Your task to perform on an android device: set the stopwatch Image 0: 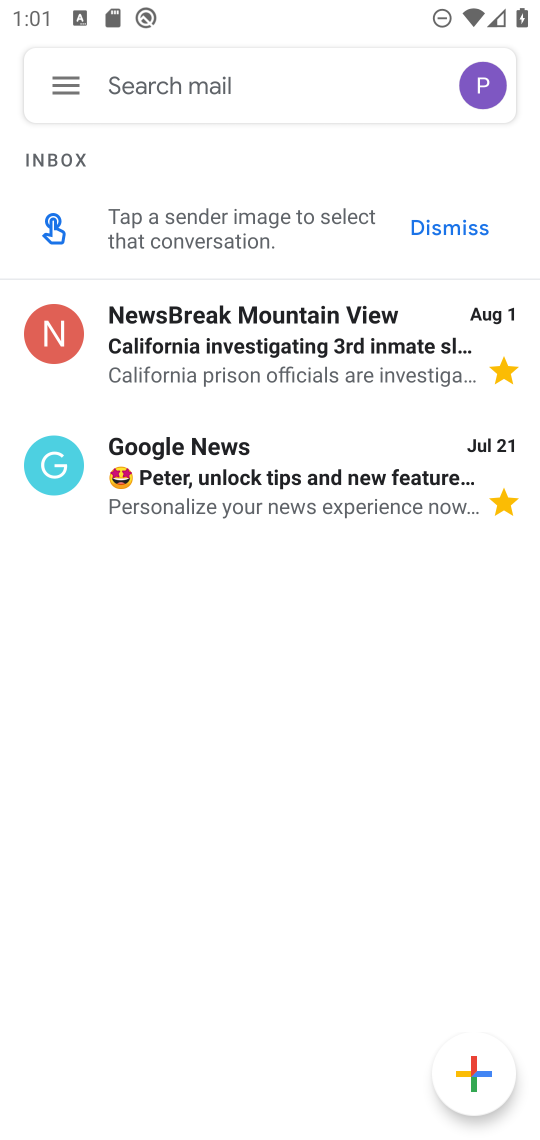
Step 0: press home button
Your task to perform on an android device: set the stopwatch Image 1: 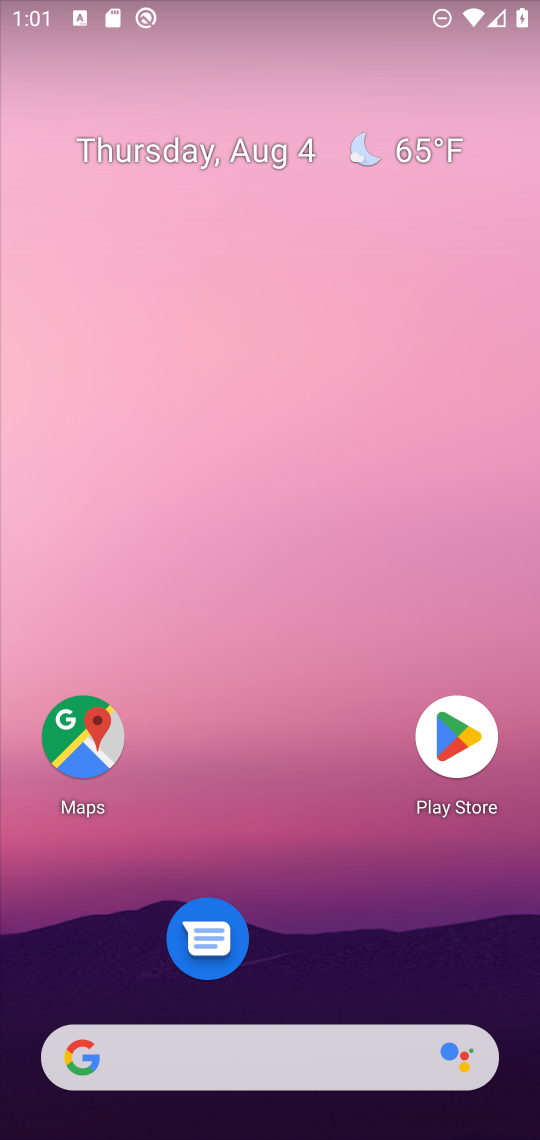
Step 1: drag from (172, 1119) to (389, 189)
Your task to perform on an android device: set the stopwatch Image 2: 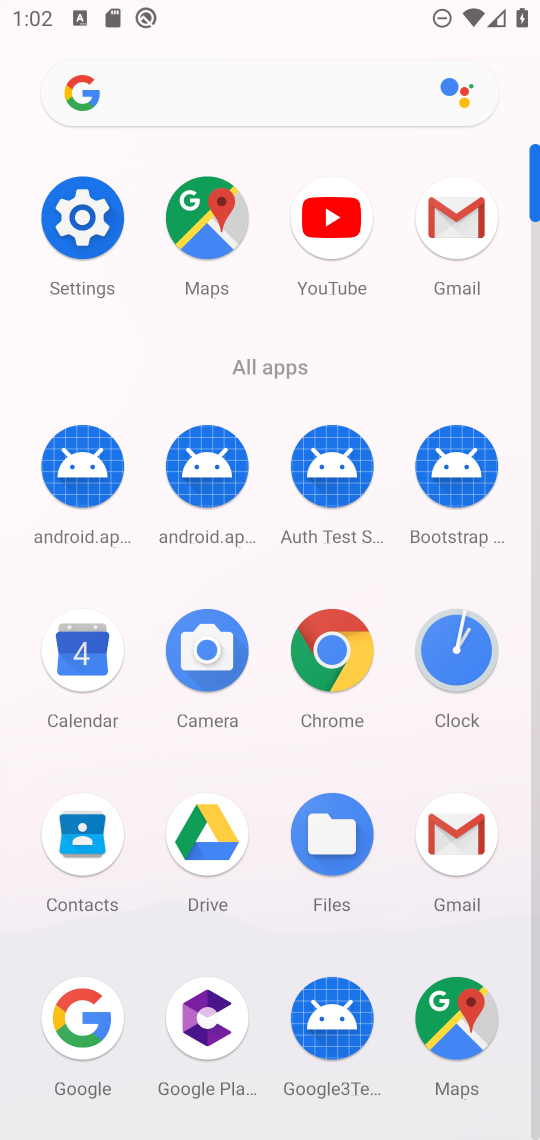
Step 2: click (461, 675)
Your task to perform on an android device: set the stopwatch Image 3: 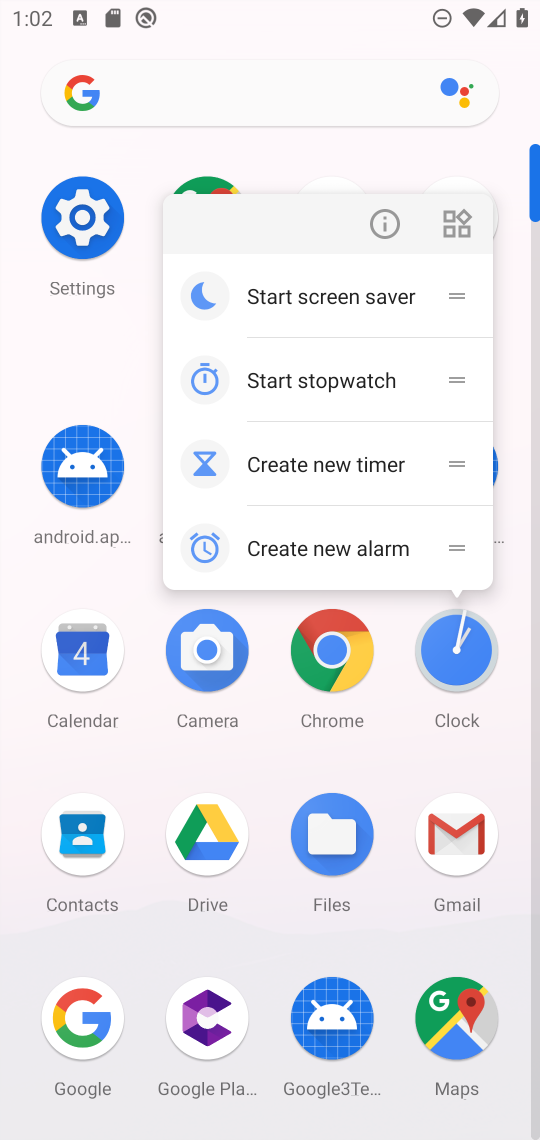
Step 3: click (461, 675)
Your task to perform on an android device: set the stopwatch Image 4: 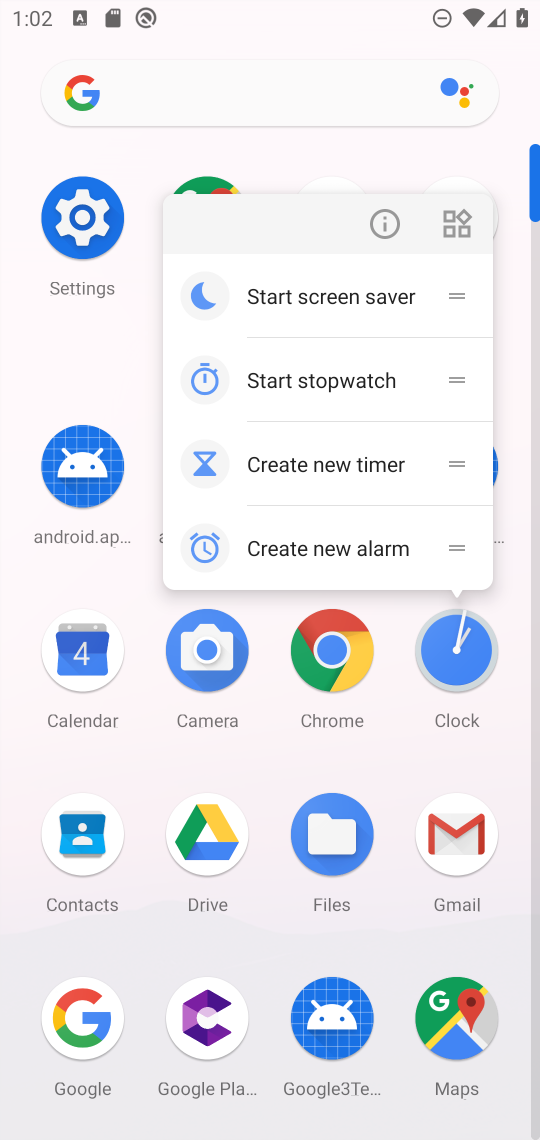
Step 4: click (461, 675)
Your task to perform on an android device: set the stopwatch Image 5: 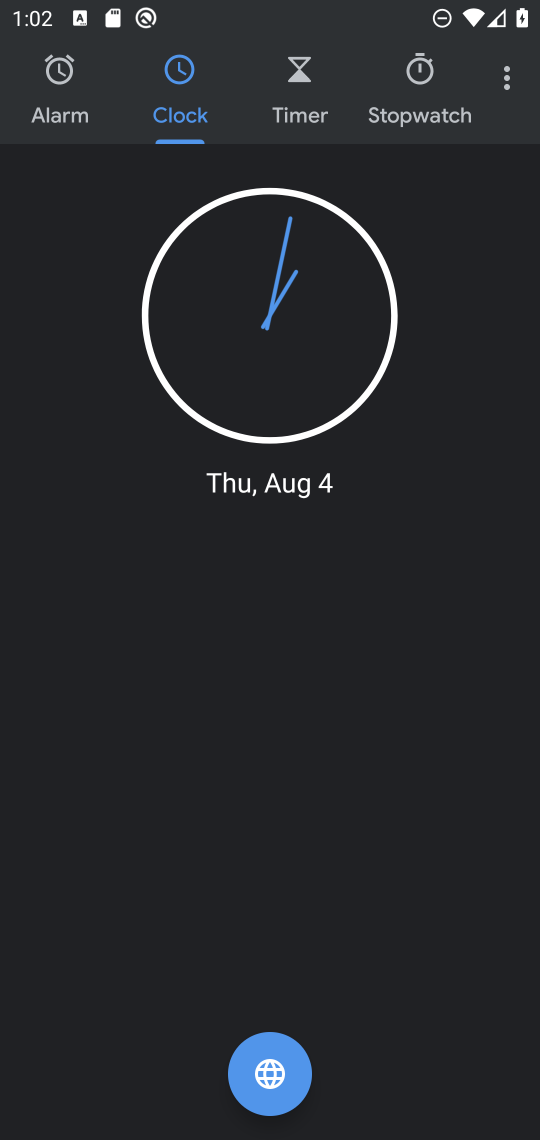
Step 5: click (419, 83)
Your task to perform on an android device: set the stopwatch Image 6: 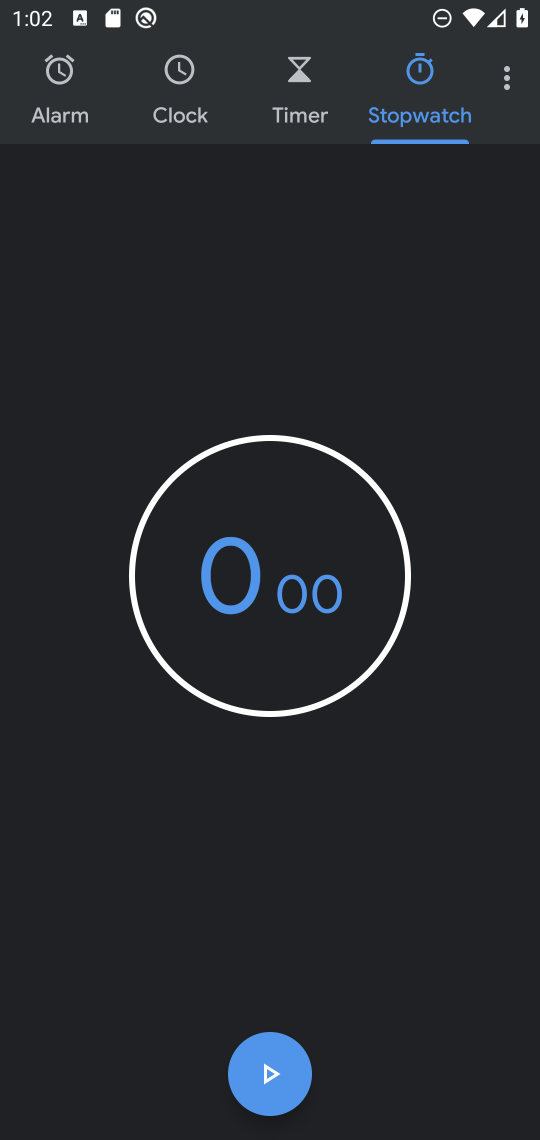
Step 6: task complete